Your task to perform on an android device: add a contact Image 0: 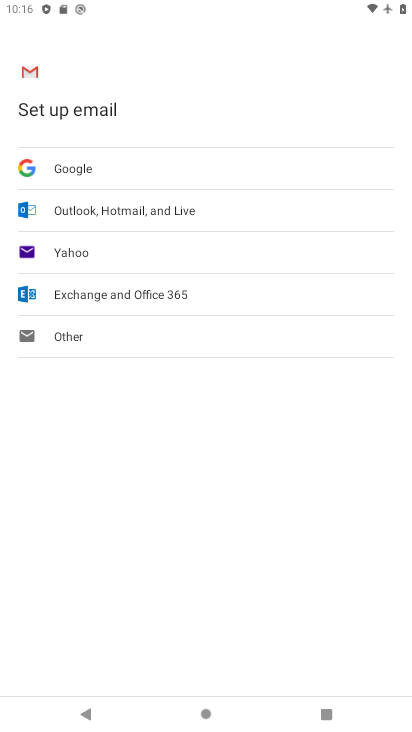
Step 0: press home button
Your task to perform on an android device: add a contact Image 1: 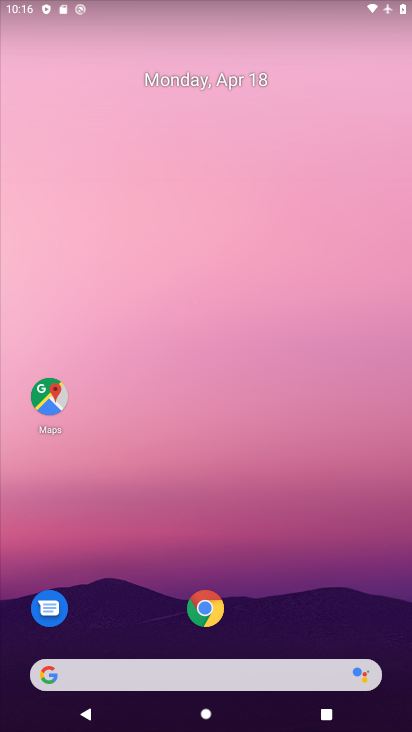
Step 1: drag from (251, 505) to (228, 175)
Your task to perform on an android device: add a contact Image 2: 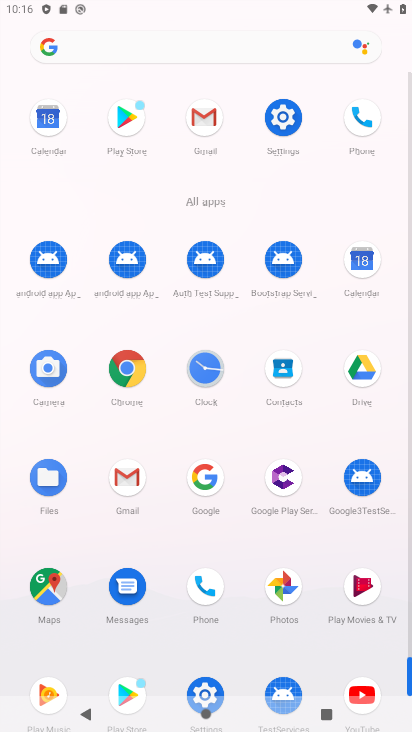
Step 2: drag from (201, 604) to (207, 339)
Your task to perform on an android device: add a contact Image 3: 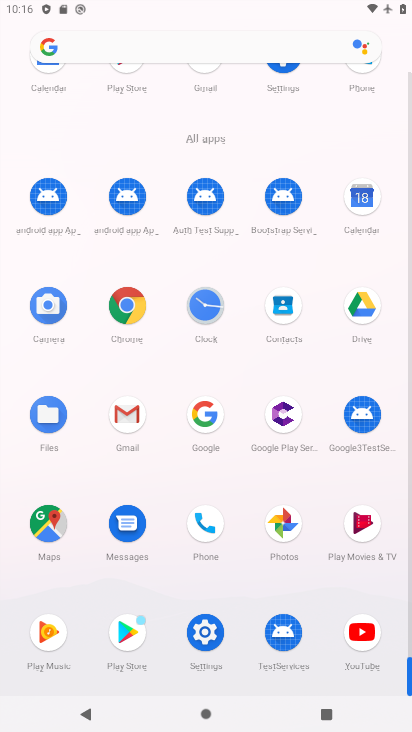
Step 3: click (296, 308)
Your task to perform on an android device: add a contact Image 4: 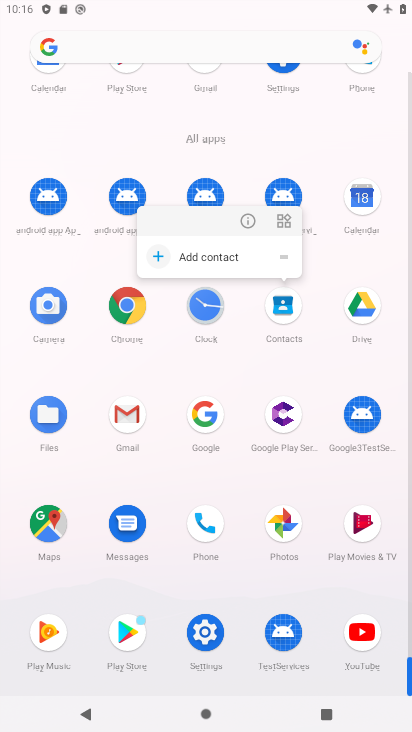
Step 4: click (276, 300)
Your task to perform on an android device: add a contact Image 5: 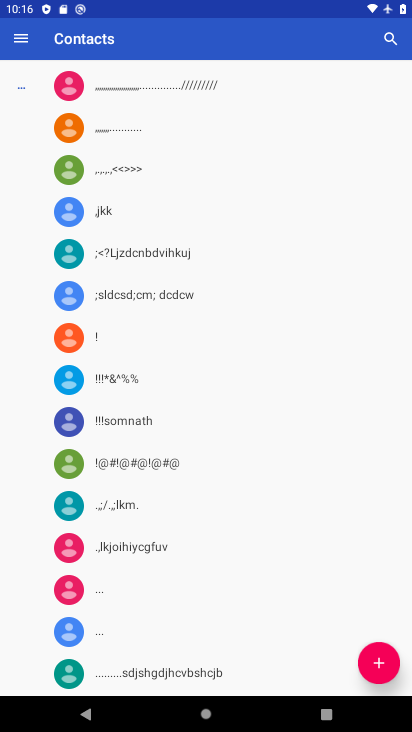
Step 5: click (380, 671)
Your task to perform on an android device: add a contact Image 6: 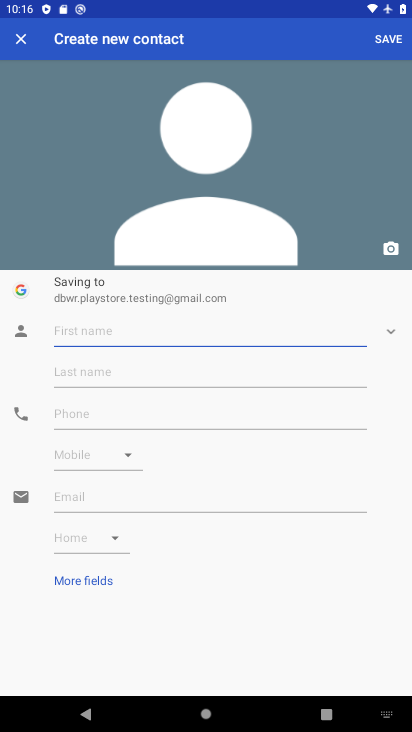
Step 6: click (139, 341)
Your task to perform on an android device: add a contact Image 7: 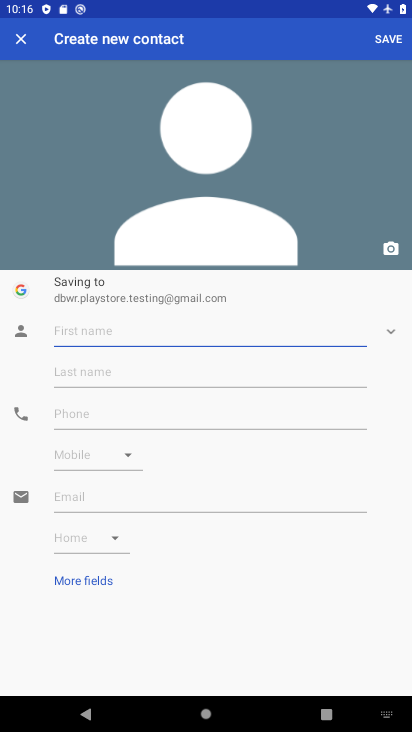
Step 7: type "pinky"
Your task to perform on an android device: add a contact Image 8: 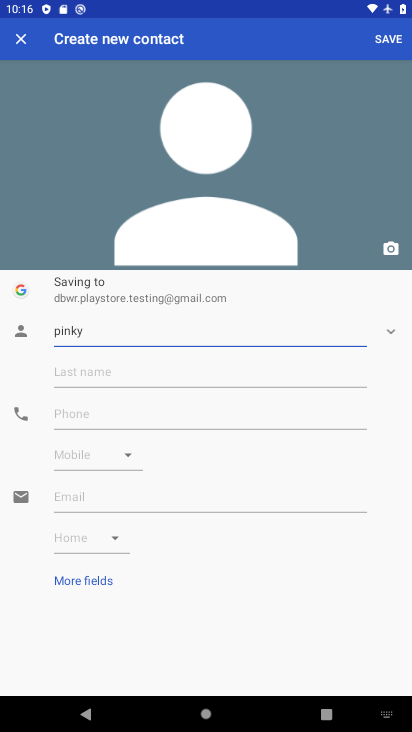
Step 8: click (93, 413)
Your task to perform on an android device: add a contact Image 9: 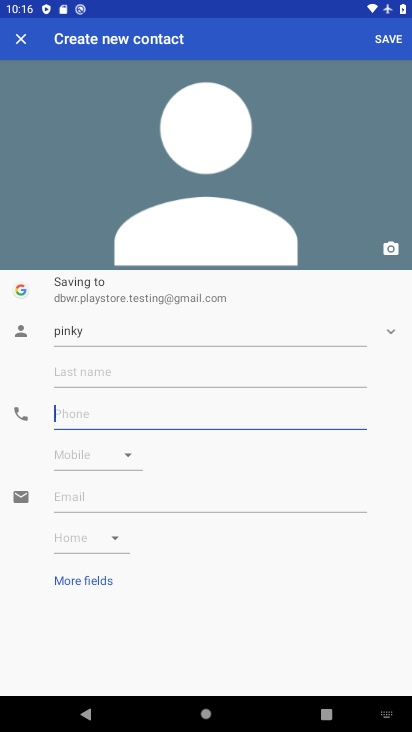
Step 9: type "123434345"
Your task to perform on an android device: add a contact Image 10: 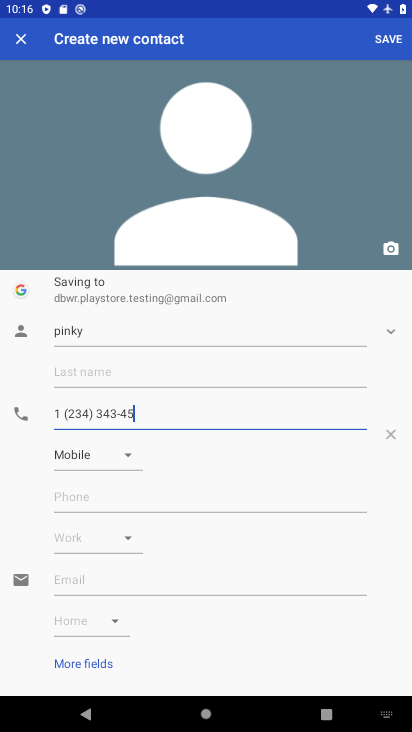
Step 10: click (395, 37)
Your task to perform on an android device: add a contact Image 11: 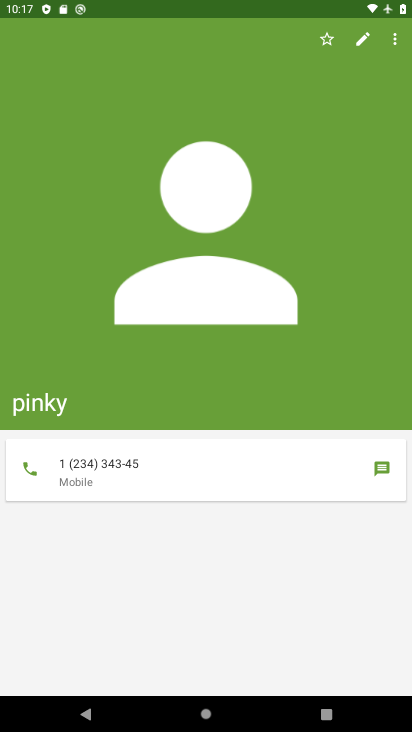
Step 11: task complete